Your task to perform on an android device: turn off notifications in google photos Image 0: 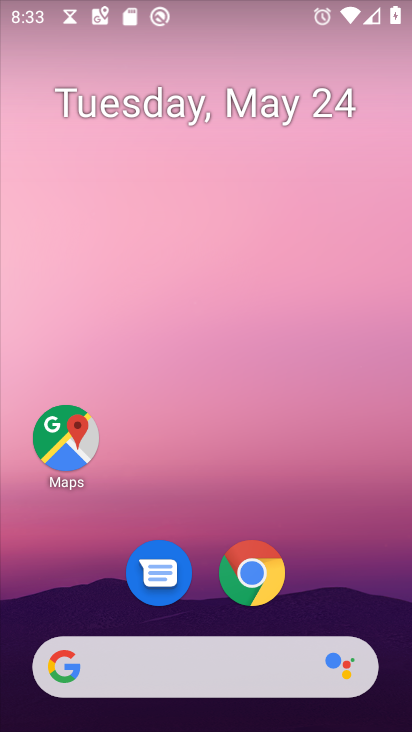
Step 0: drag from (364, 573) to (340, 13)
Your task to perform on an android device: turn off notifications in google photos Image 1: 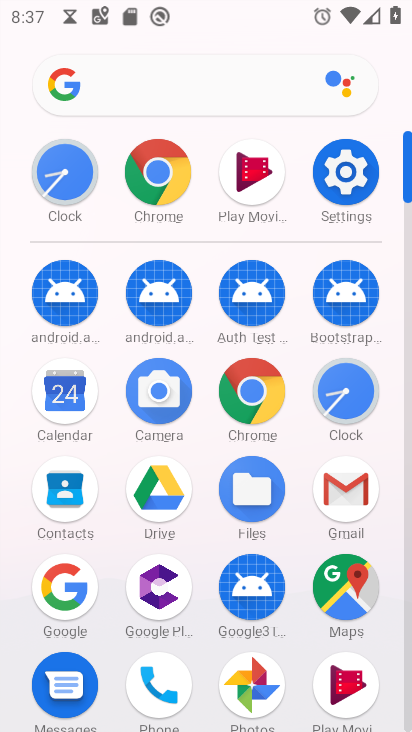
Step 1: click (269, 699)
Your task to perform on an android device: turn off notifications in google photos Image 2: 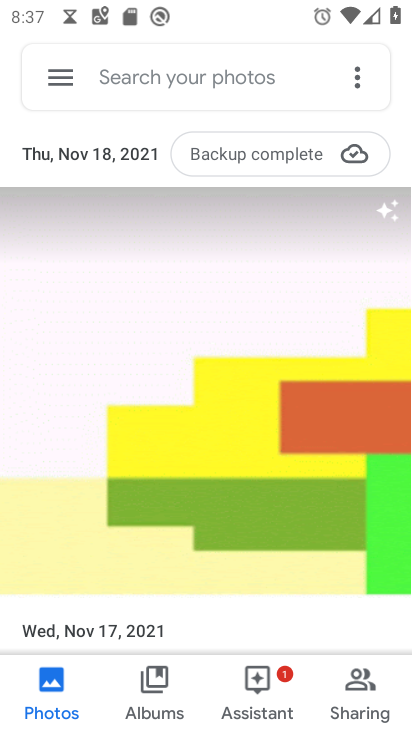
Step 2: click (75, 85)
Your task to perform on an android device: turn off notifications in google photos Image 3: 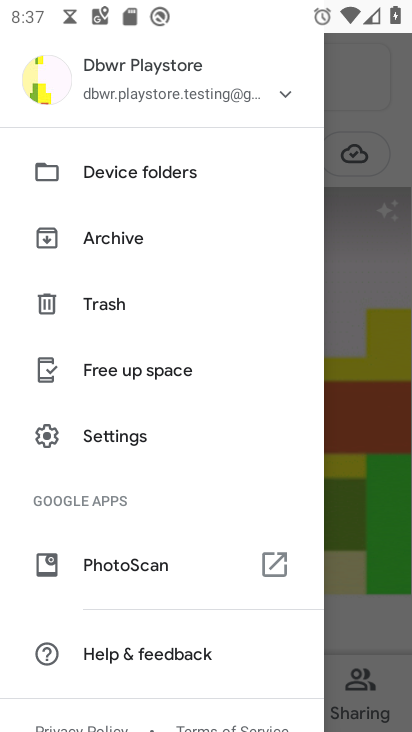
Step 3: click (106, 443)
Your task to perform on an android device: turn off notifications in google photos Image 4: 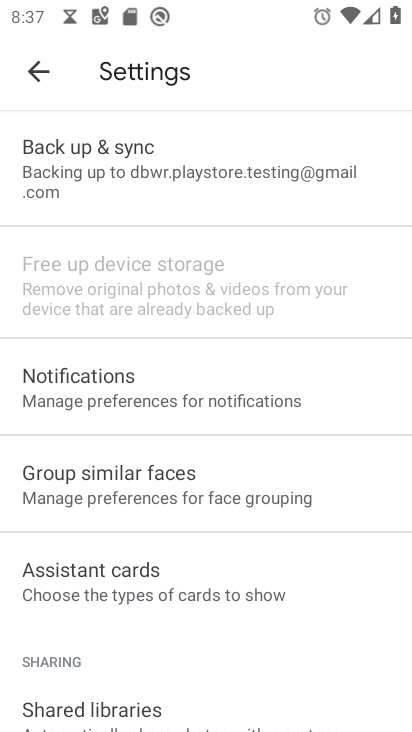
Step 4: click (112, 410)
Your task to perform on an android device: turn off notifications in google photos Image 5: 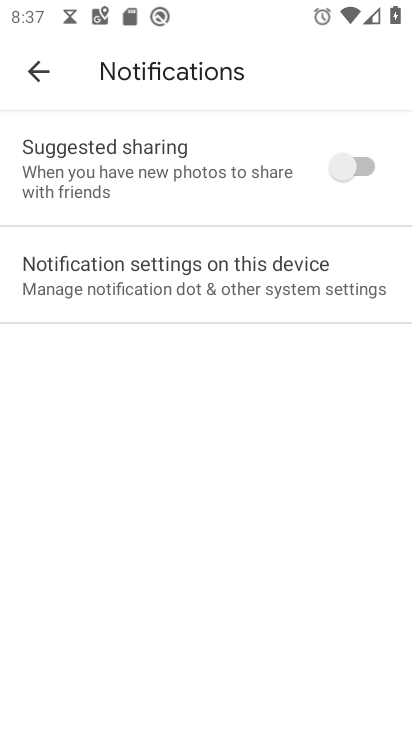
Step 5: task complete